Your task to perform on an android device: turn on javascript in the chrome app Image 0: 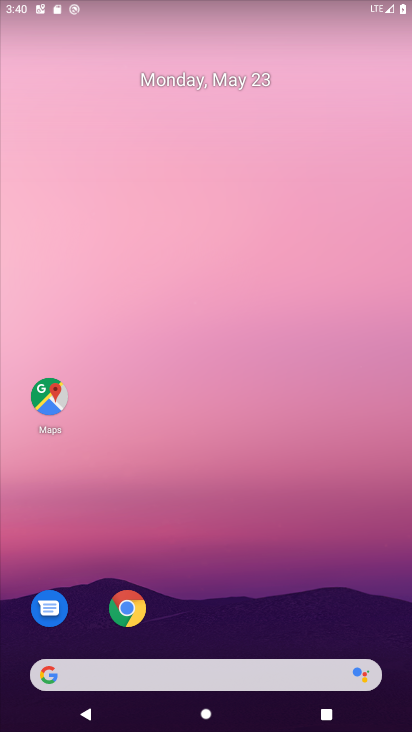
Step 0: drag from (215, 638) to (171, 123)
Your task to perform on an android device: turn on javascript in the chrome app Image 1: 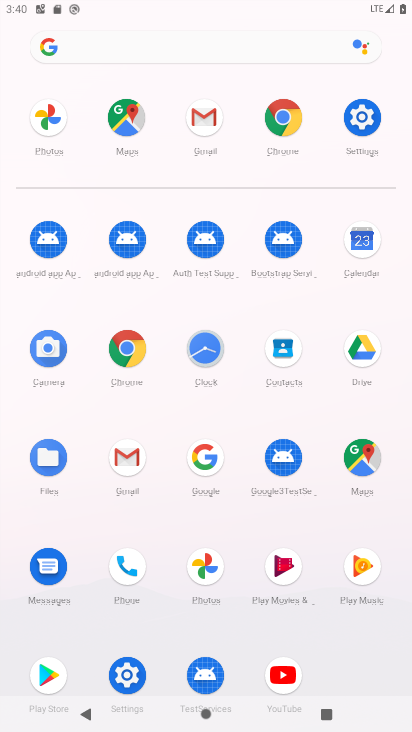
Step 1: click (295, 125)
Your task to perform on an android device: turn on javascript in the chrome app Image 2: 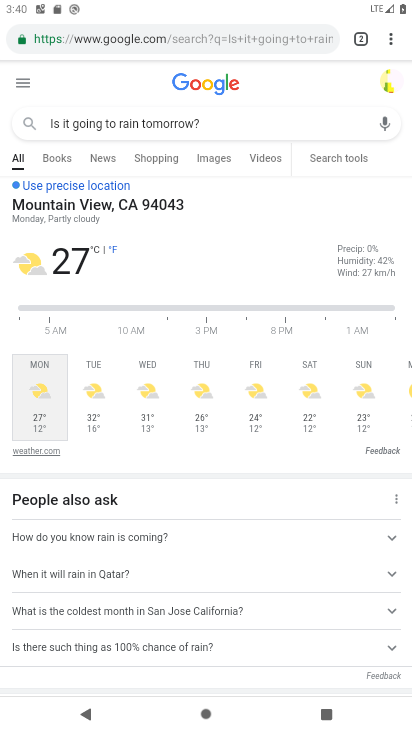
Step 2: click (390, 53)
Your task to perform on an android device: turn on javascript in the chrome app Image 3: 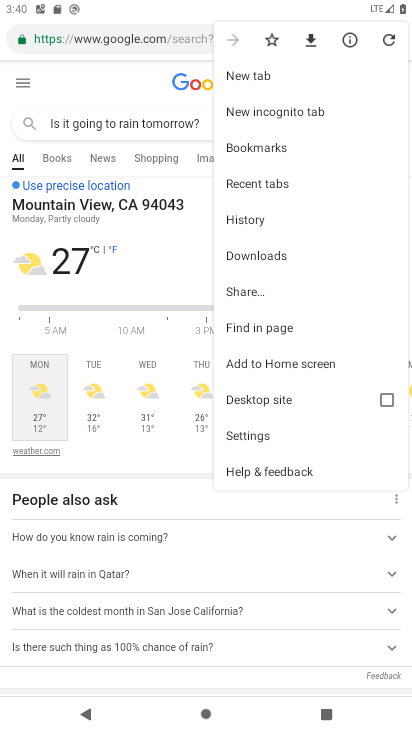
Step 3: click (296, 441)
Your task to perform on an android device: turn on javascript in the chrome app Image 4: 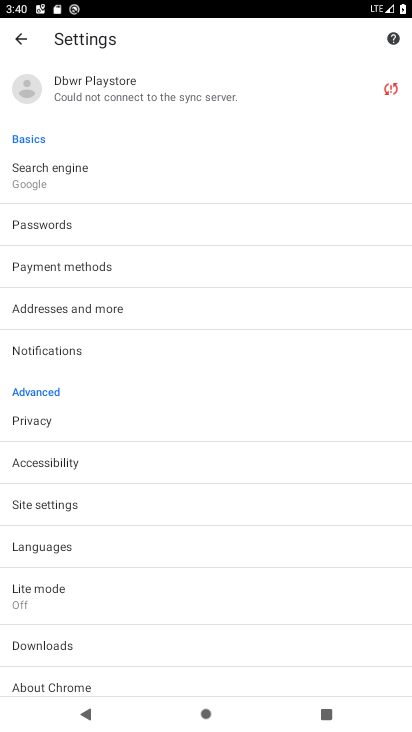
Step 4: click (134, 510)
Your task to perform on an android device: turn on javascript in the chrome app Image 5: 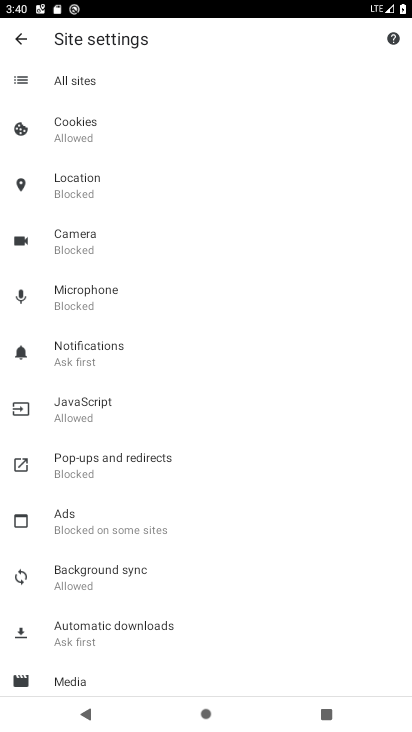
Step 5: click (126, 413)
Your task to perform on an android device: turn on javascript in the chrome app Image 6: 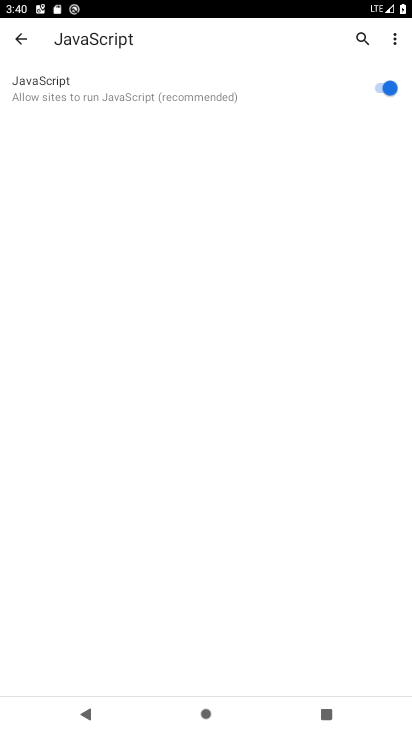
Step 6: task complete